Your task to perform on an android device: turn off location history Image 0: 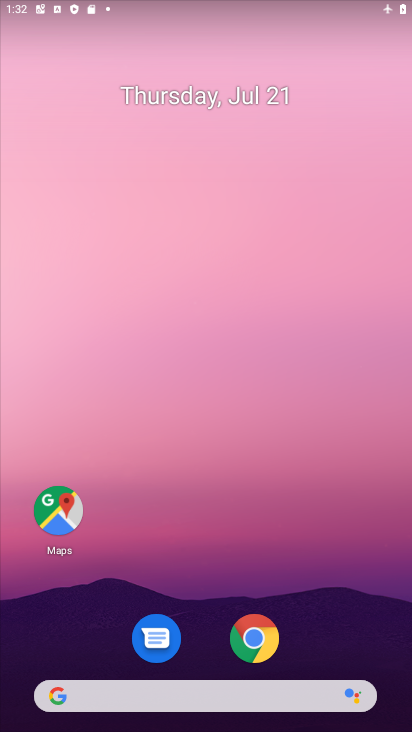
Step 0: click (62, 511)
Your task to perform on an android device: turn off location history Image 1: 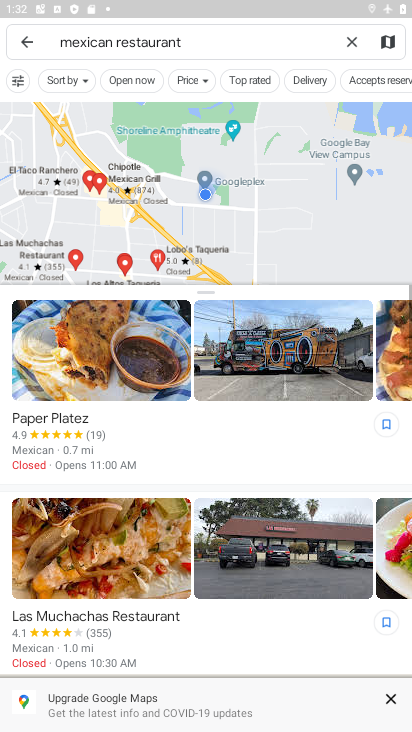
Step 1: click (25, 42)
Your task to perform on an android device: turn off location history Image 2: 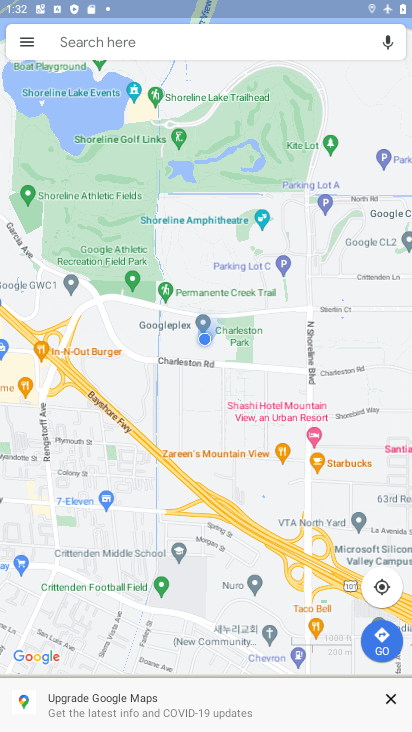
Step 2: click (29, 42)
Your task to perform on an android device: turn off location history Image 3: 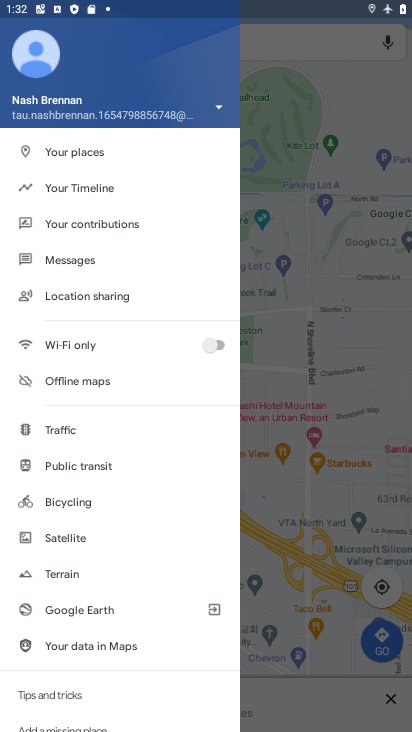
Step 3: click (145, 184)
Your task to perform on an android device: turn off location history Image 4: 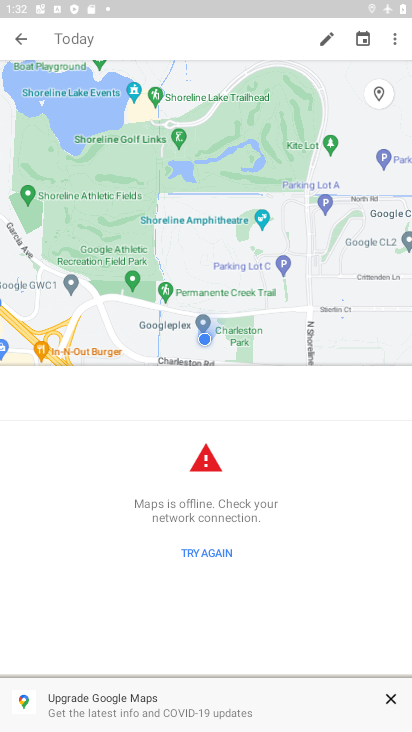
Step 4: click (396, 38)
Your task to perform on an android device: turn off location history Image 5: 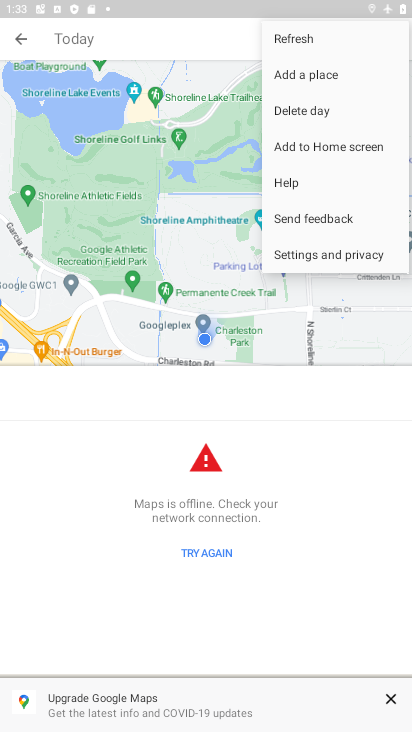
Step 5: click (310, 259)
Your task to perform on an android device: turn off location history Image 6: 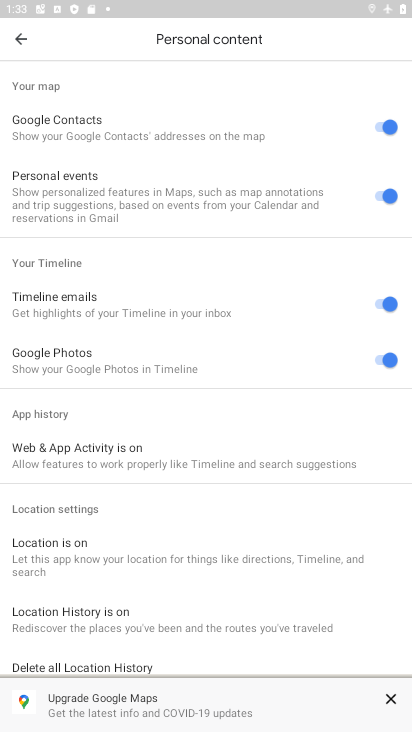
Step 6: click (87, 618)
Your task to perform on an android device: turn off location history Image 7: 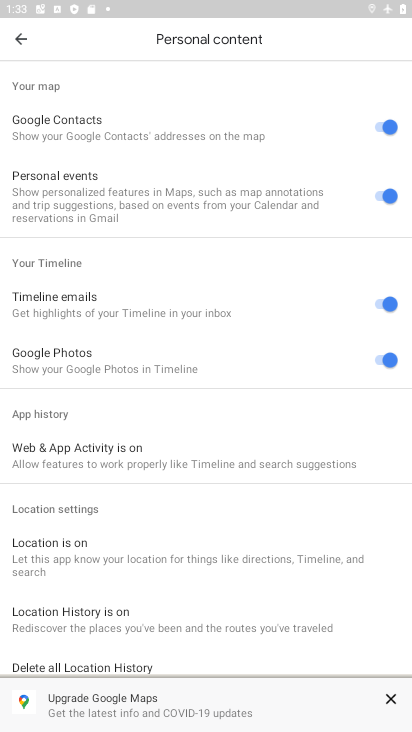
Step 7: click (87, 618)
Your task to perform on an android device: turn off location history Image 8: 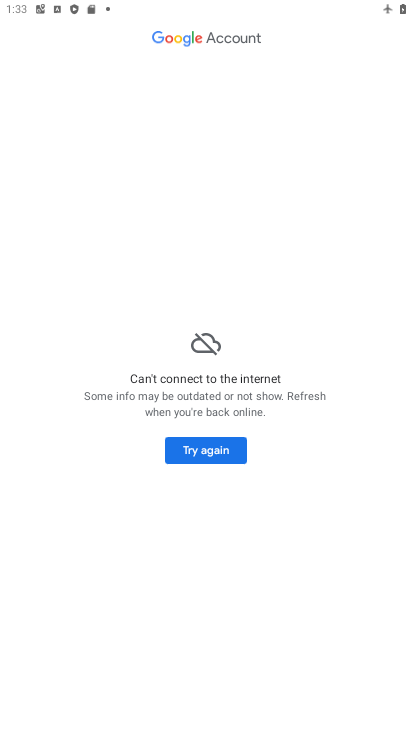
Step 8: task complete